Your task to perform on an android device: Open network settings Image 0: 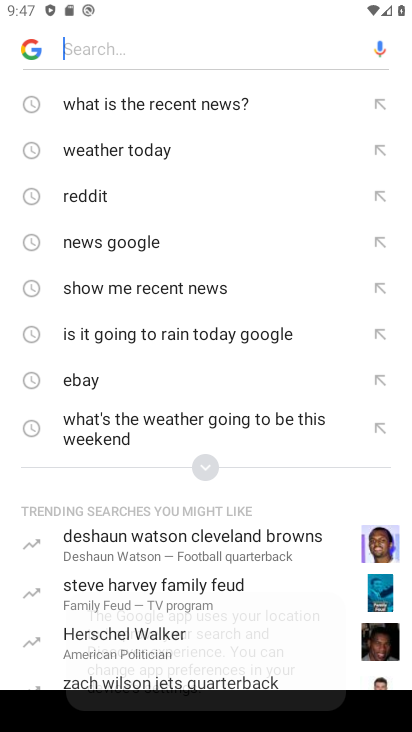
Step 0: press home button
Your task to perform on an android device: Open network settings Image 1: 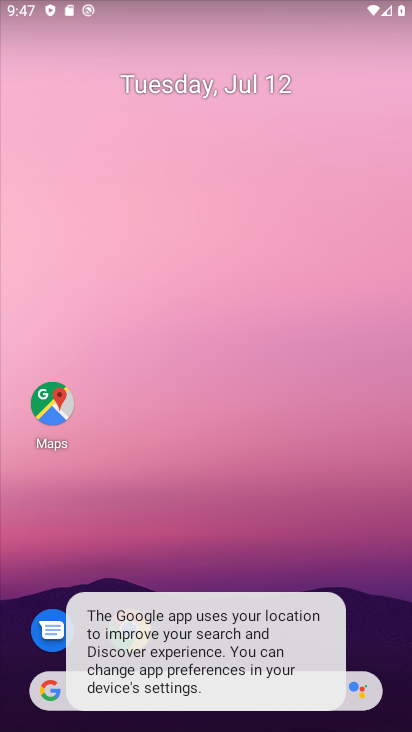
Step 1: drag from (299, 599) to (317, 123)
Your task to perform on an android device: Open network settings Image 2: 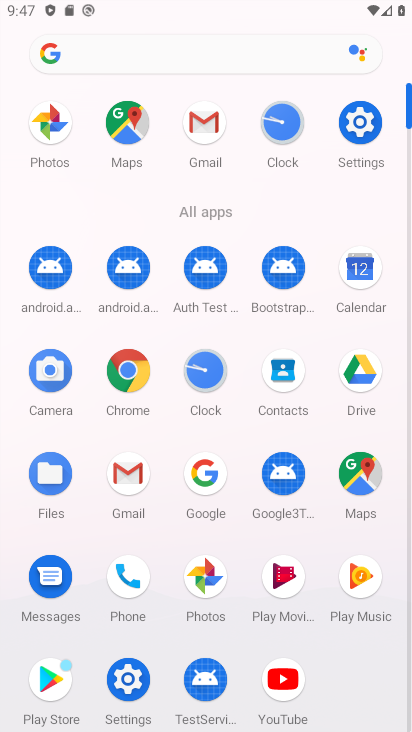
Step 2: click (360, 133)
Your task to perform on an android device: Open network settings Image 3: 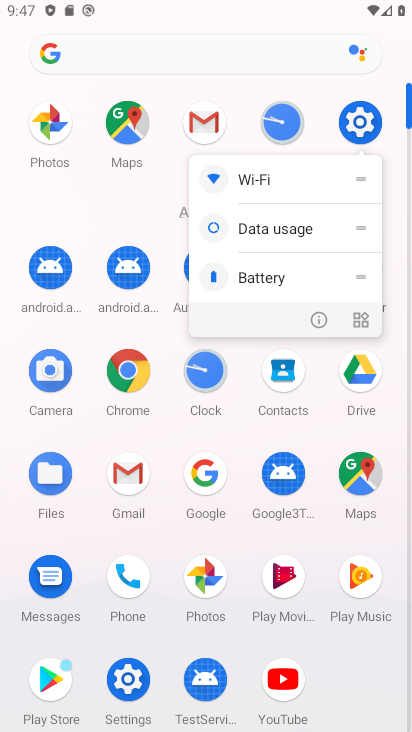
Step 3: click (360, 132)
Your task to perform on an android device: Open network settings Image 4: 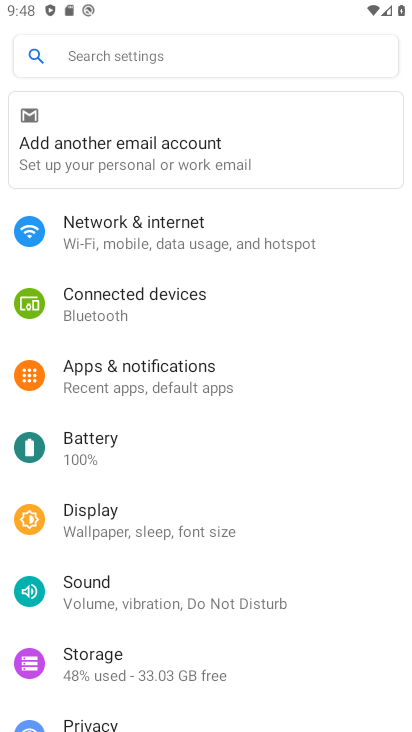
Step 4: click (160, 223)
Your task to perform on an android device: Open network settings Image 5: 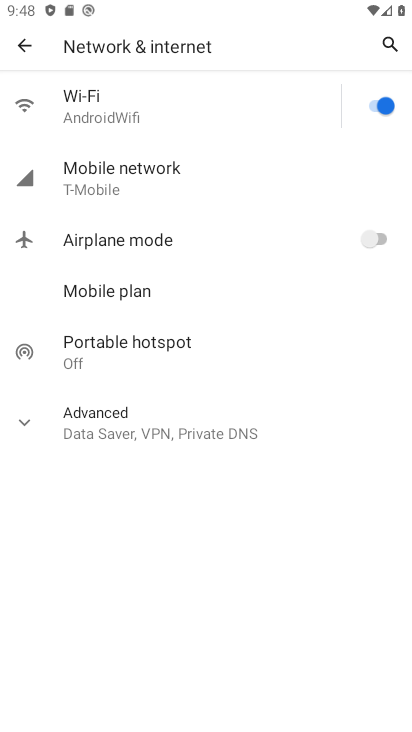
Step 5: task complete